Your task to perform on an android device: turn on the 12-hour format for clock Image 0: 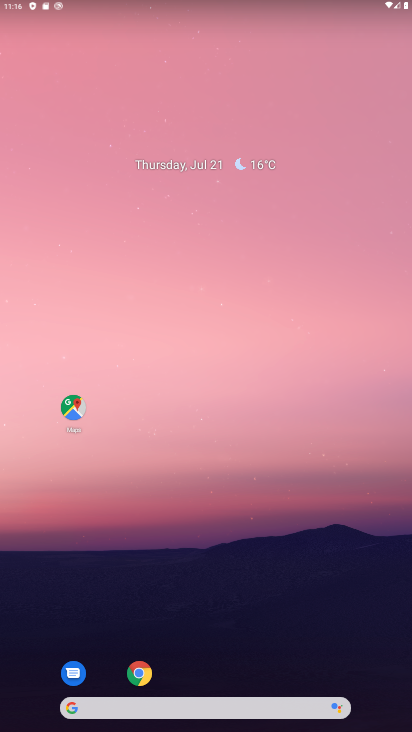
Step 0: drag from (297, 642) to (309, 16)
Your task to perform on an android device: turn on the 12-hour format for clock Image 1: 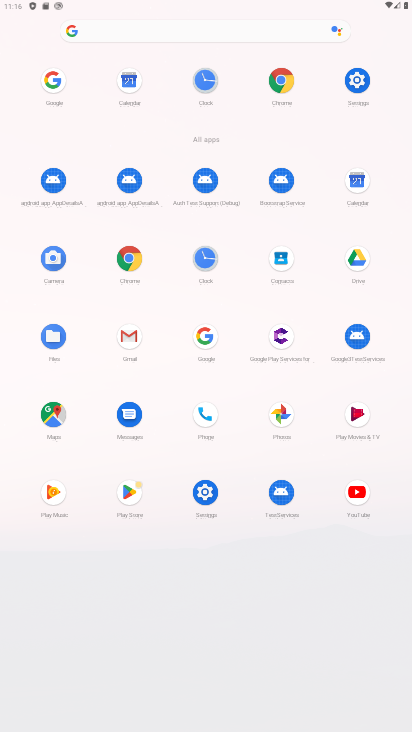
Step 1: click (204, 267)
Your task to perform on an android device: turn on the 12-hour format for clock Image 2: 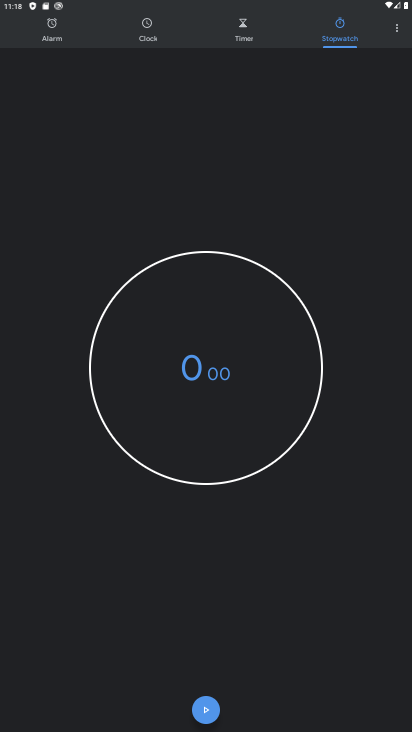
Step 2: click (400, 40)
Your task to perform on an android device: turn on the 12-hour format for clock Image 3: 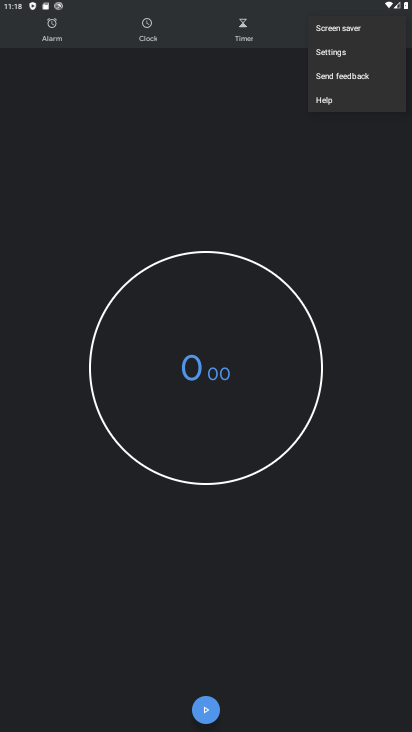
Step 3: click (338, 51)
Your task to perform on an android device: turn on the 12-hour format for clock Image 4: 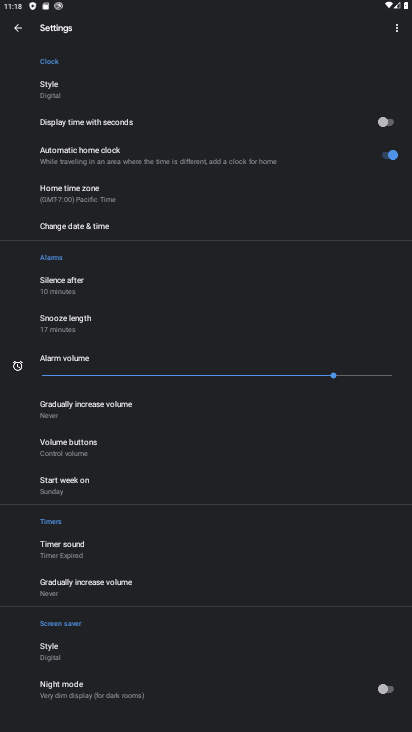
Step 4: click (103, 230)
Your task to perform on an android device: turn on the 12-hour format for clock Image 5: 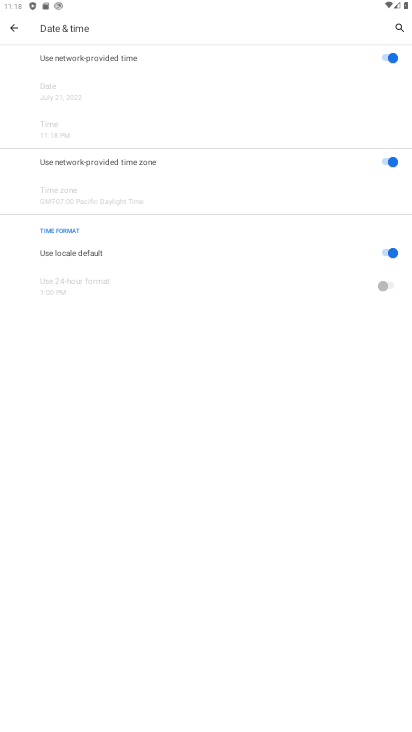
Step 5: task complete